Your task to perform on an android device: turn on notifications settings in the gmail app Image 0: 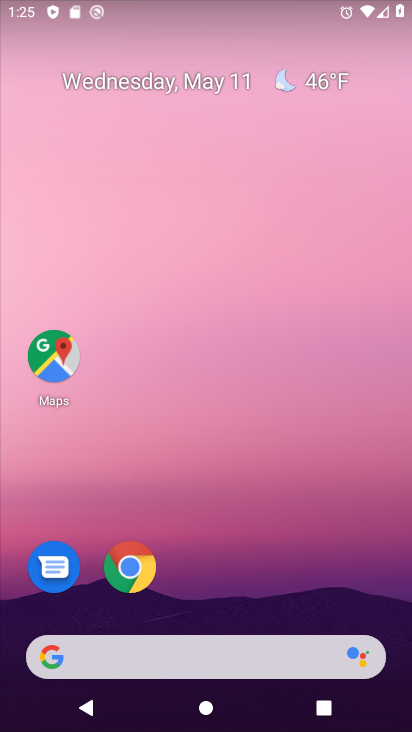
Step 0: drag from (226, 622) to (188, 14)
Your task to perform on an android device: turn on notifications settings in the gmail app Image 1: 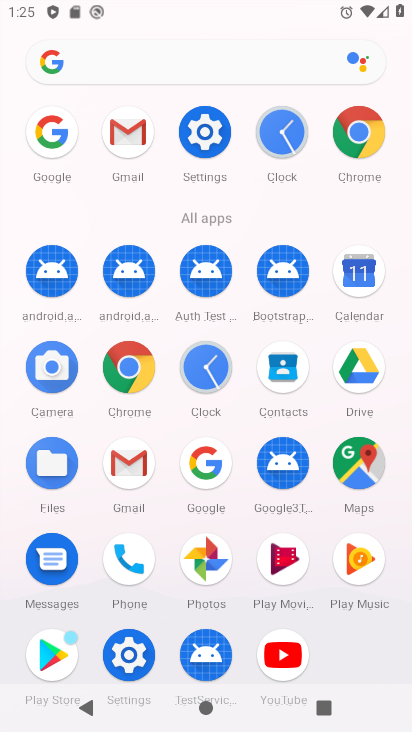
Step 1: click (121, 470)
Your task to perform on an android device: turn on notifications settings in the gmail app Image 2: 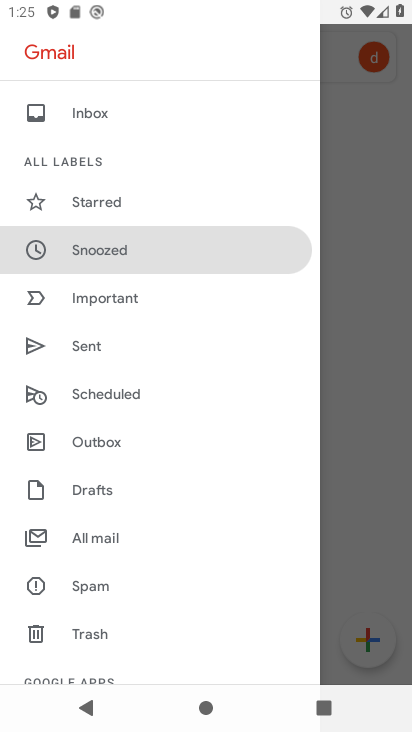
Step 2: drag from (145, 593) to (138, 148)
Your task to perform on an android device: turn on notifications settings in the gmail app Image 3: 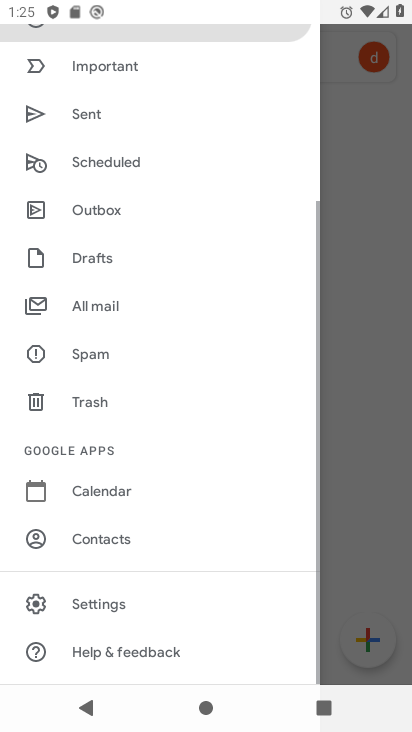
Step 3: click (82, 597)
Your task to perform on an android device: turn on notifications settings in the gmail app Image 4: 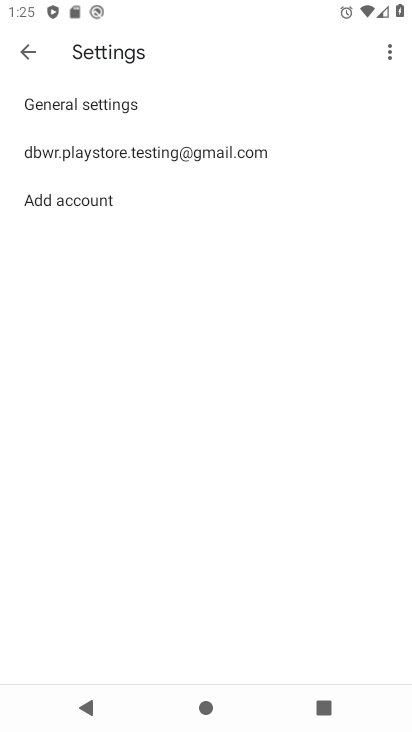
Step 4: click (119, 101)
Your task to perform on an android device: turn on notifications settings in the gmail app Image 5: 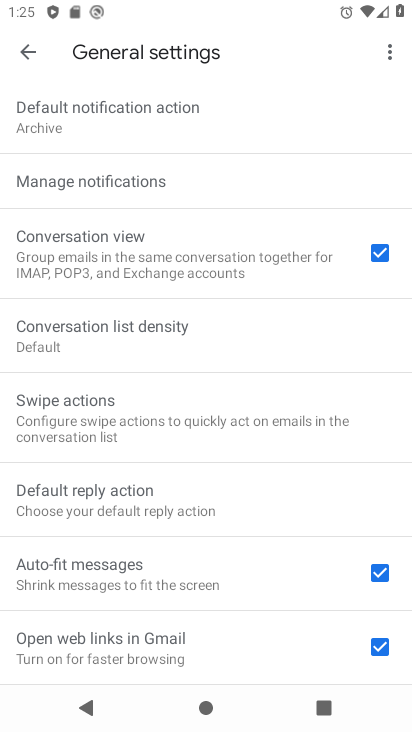
Step 5: click (129, 192)
Your task to perform on an android device: turn on notifications settings in the gmail app Image 6: 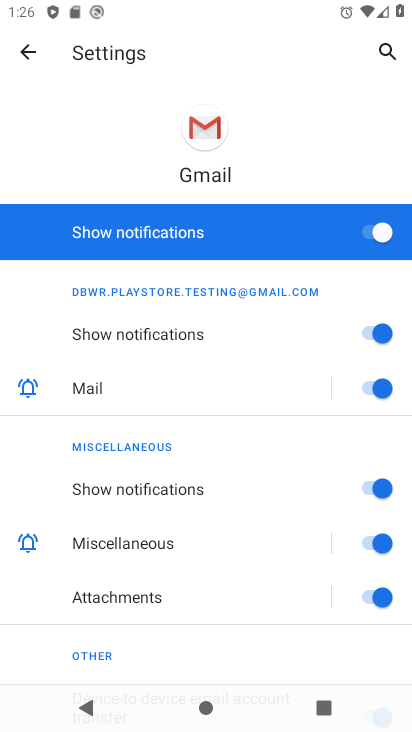
Step 6: task complete